Your task to perform on an android device: change text size in settings app Image 0: 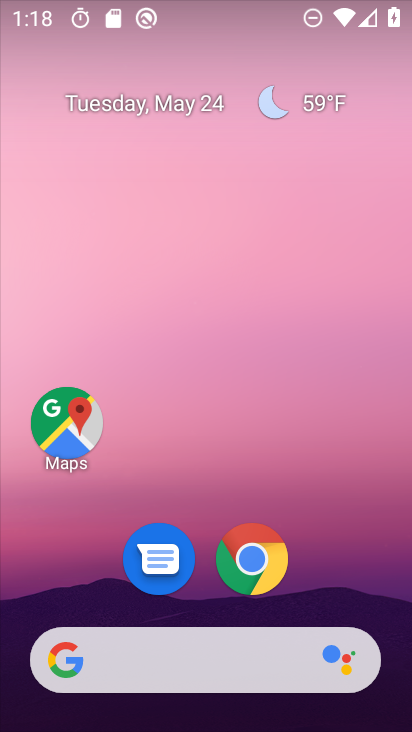
Step 0: drag from (410, 539) to (411, 88)
Your task to perform on an android device: change text size in settings app Image 1: 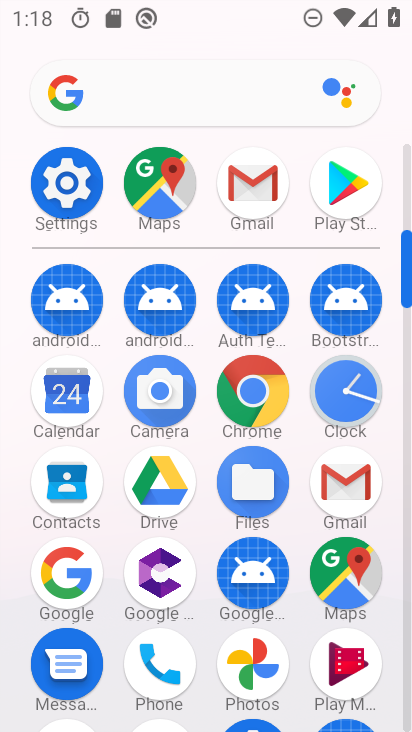
Step 1: click (34, 185)
Your task to perform on an android device: change text size in settings app Image 2: 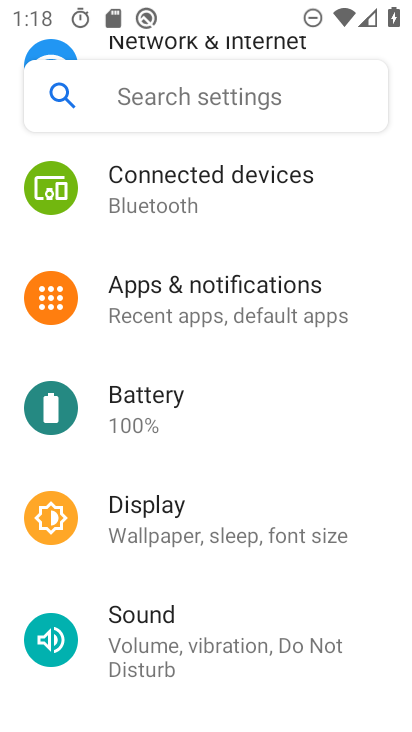
Step 2: click (141, 521)
Your task to perform on an android device: change text size in settings app Image 3: 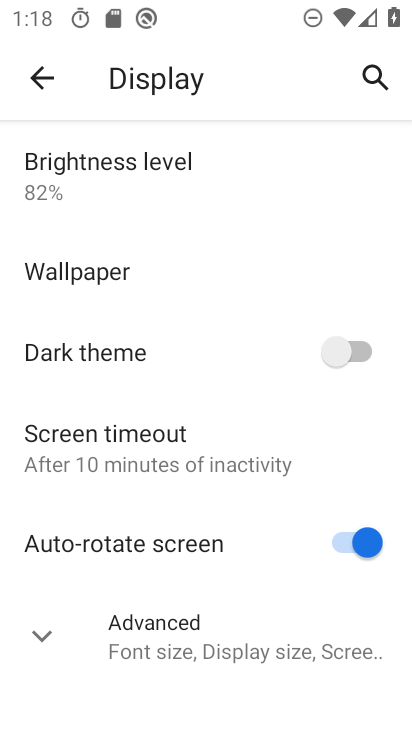
Step 3: click (39, 636)
Your task to perform on an android device: change text size in settings app Image 4: 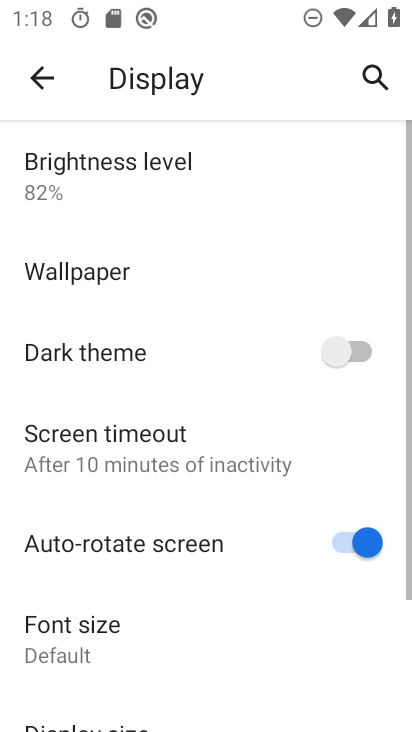
Step 4: drag from (262, 680) to (260, 371)
Your task to perform on an android device: change text size in settings app Image 5: 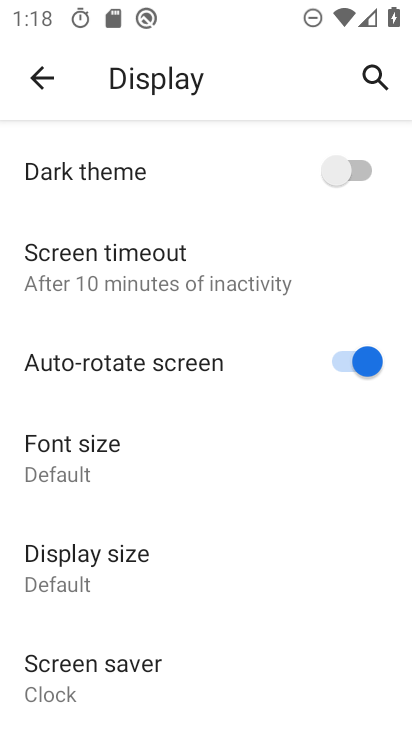
Step 5: click (59, 558)
Your task to perform on an android device: change text size in settings app Image 6: 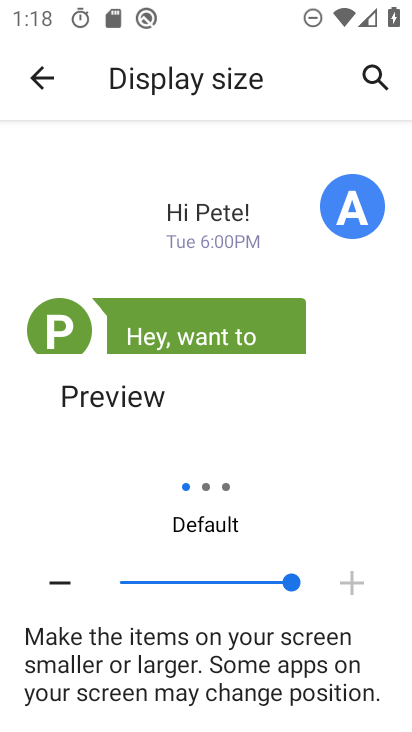
Step 6: click (27, 75)
Your task to perform on an android device: change text size in settings app Image 7: 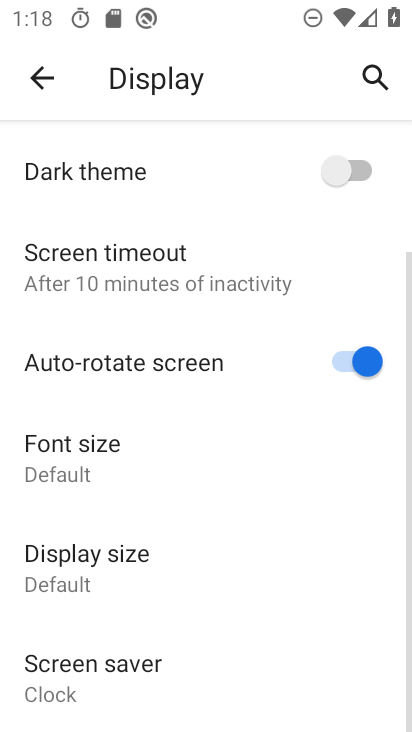
Step 7: click (74, 471)
Your task to perform on an android device: change text size in settings app Image 8: 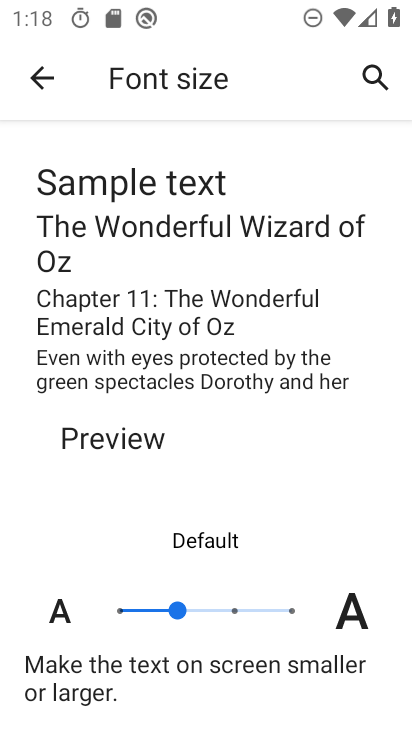
Step 8: click (193, 609)
Your task to perform on an android device: change text size in settings app Image 9: 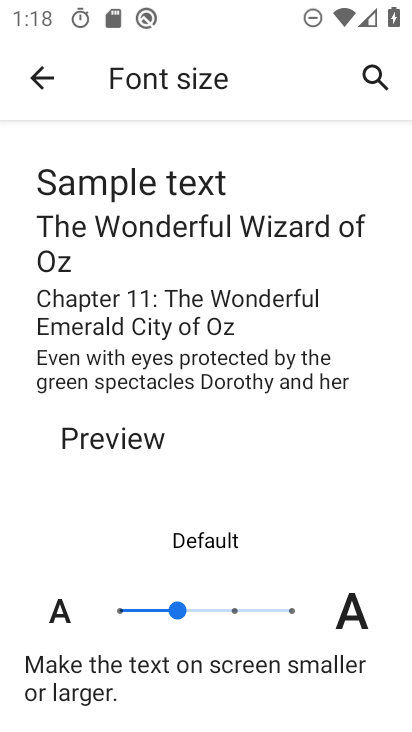
Step 9: click (147, 609)
Your task to perform on an android device: change text size in settings app Image 10: 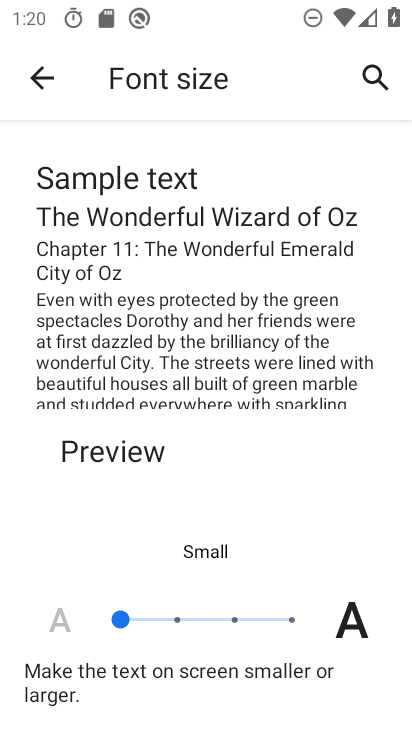
Step 10: task complete